Your task to perform on an android device: set the stopwatch Image 0: 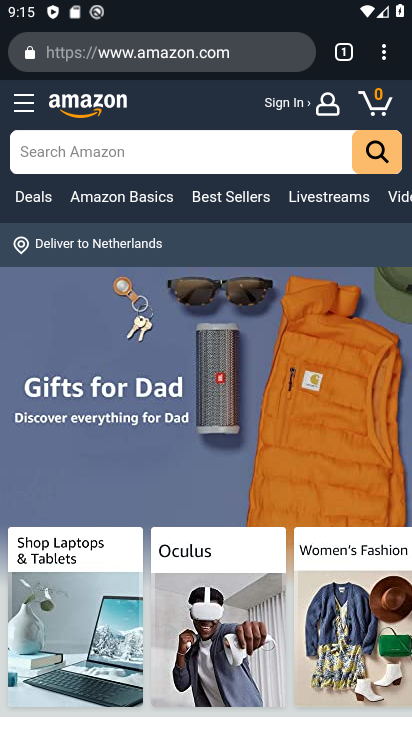
Step 0: press home button
Your task to perform on an android device: set the stopwatch Image 1: 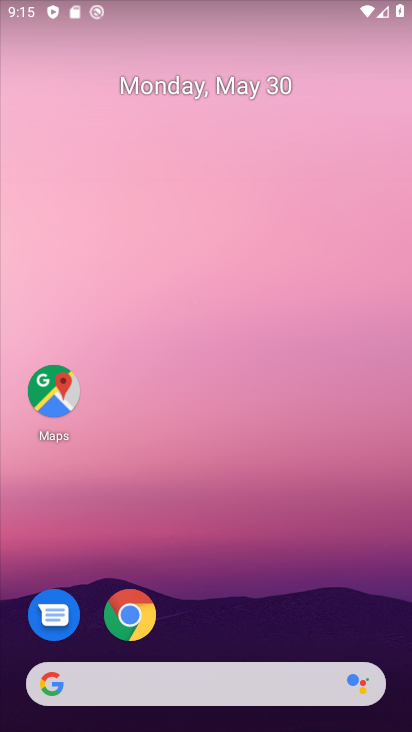
Step 1: drag from (263, 730) to (274, 293)
Your task to perform on an android device: set the stopwatch Image 2: 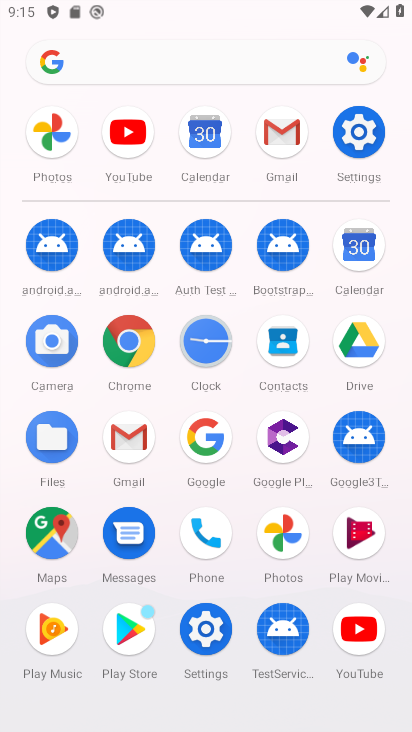
Step 2: click (194, 338)
Your task to perform on an android device: set the stopwatch Image 3: 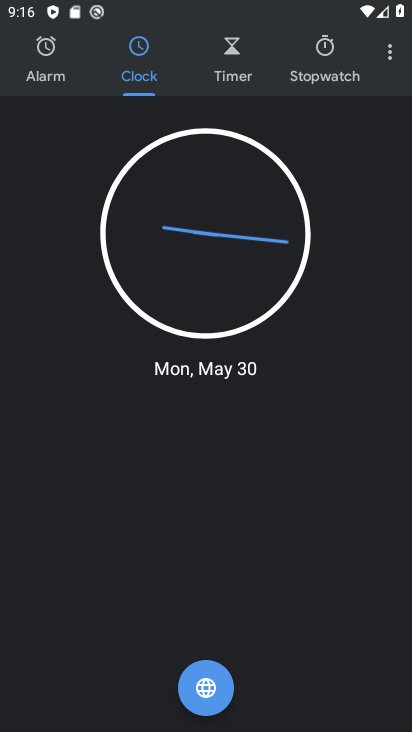
Step 3: click (320, 62)
Your task to perform on an android device: set the stopwatch Image 4: 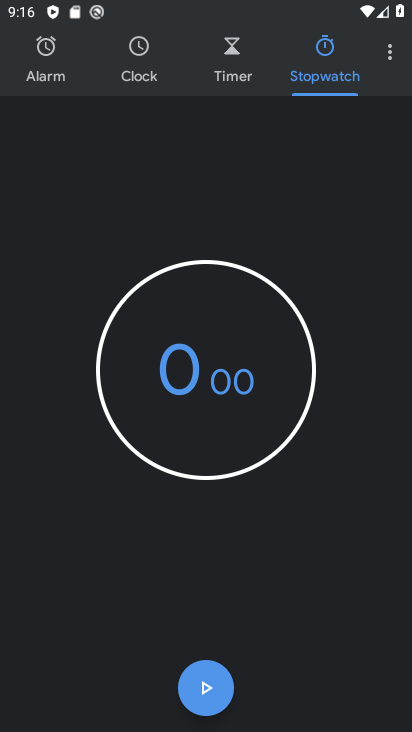
Step 4: click (204, 692)
Your task to perform on an android device: set the stopwatch Image 5: 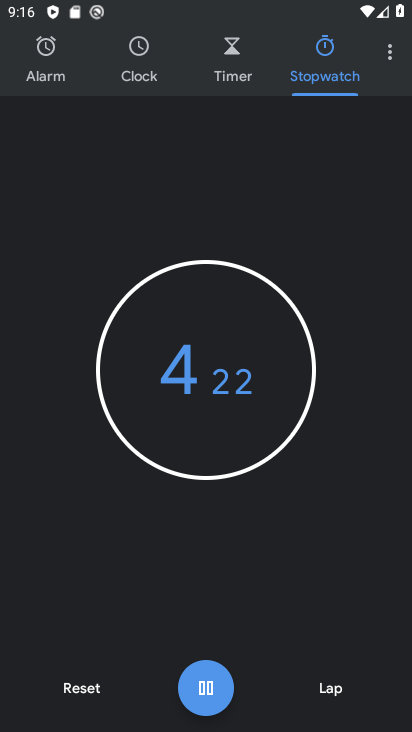
Step 5: click (201, 700)
Your task to perform on an android device: set the stopwatch Image 6: 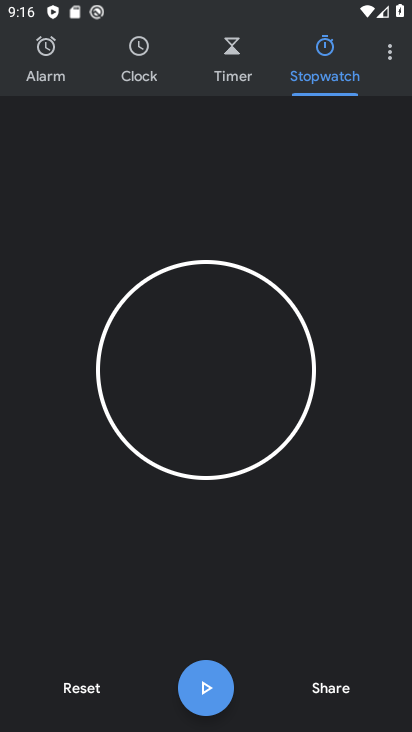
Step 6: task complete